Your task to perform on an android device: install app "Google Home" Image 0: 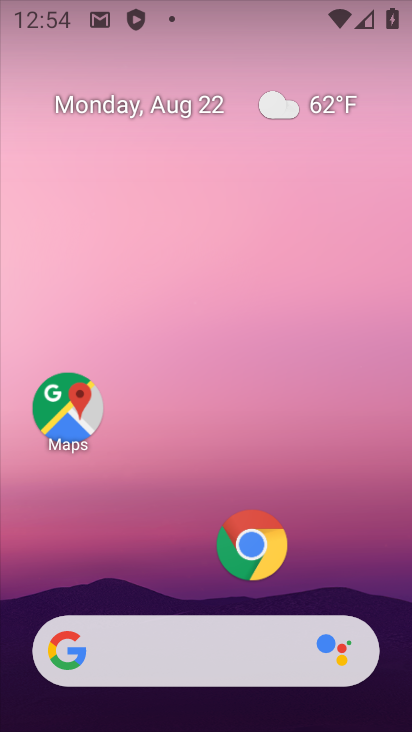
Step 0: drag from (183, 580) to (157, 3)
Your task to perform on an android device: install app "Google Home" Image 1: 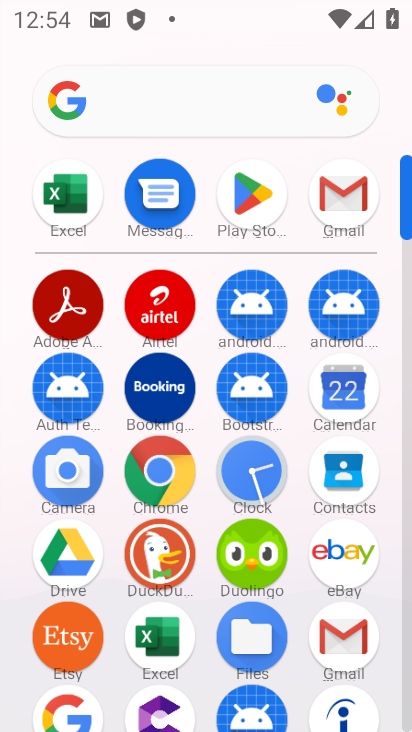
Step 1: click (275, 209)
Your task to perform on an android device: install app "Google Home" Image 2: 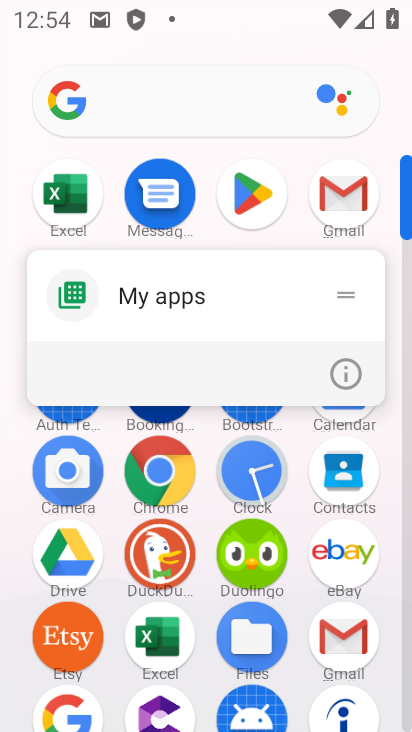
Step 2: click (261, 203)
Your task to perform on an android device: install app "Google Home" Image 3: 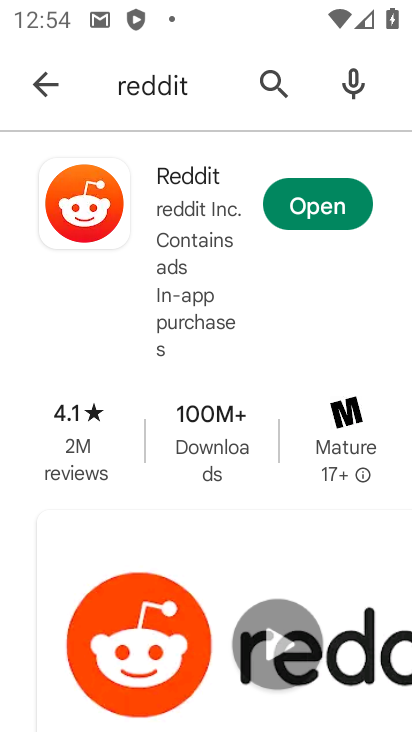
Step 3: click (276, 73)
Your task to perform on an android device: install app "Google Home" Image 4: 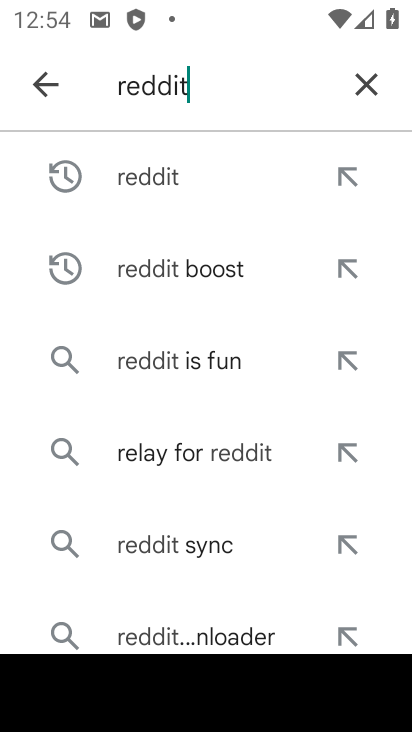
Step 4: click (355, 75)
Your task to perform on an android device: install app "Google Home" Image 5: 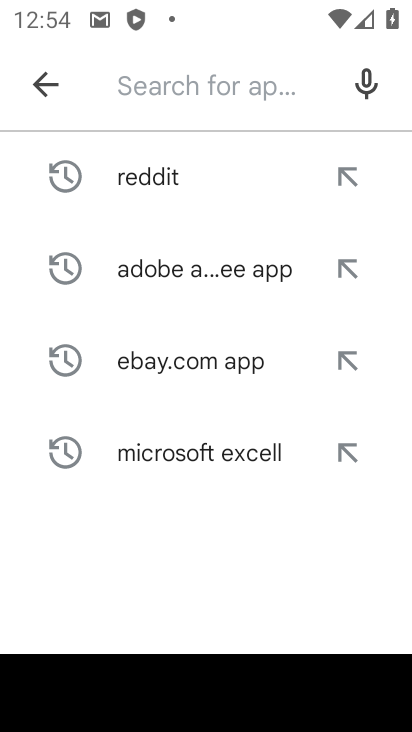
Step 5: click (179, 94)
Your task to perform on an android device: install app "Google Home" Image 6: 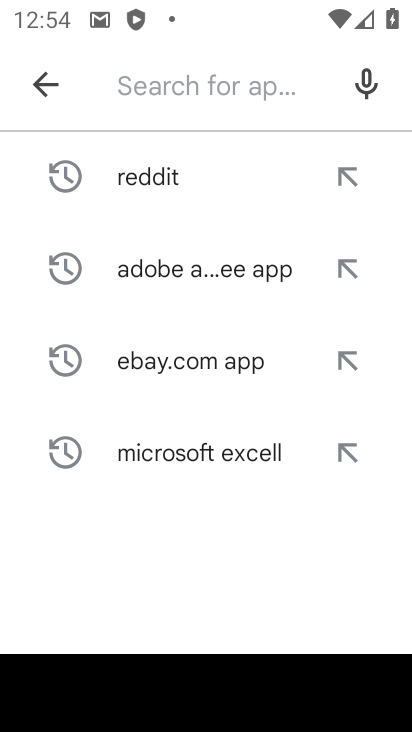
Step 6: type "Google Home"
Your task to perform on an android device: install app "Google Home" Image 7: 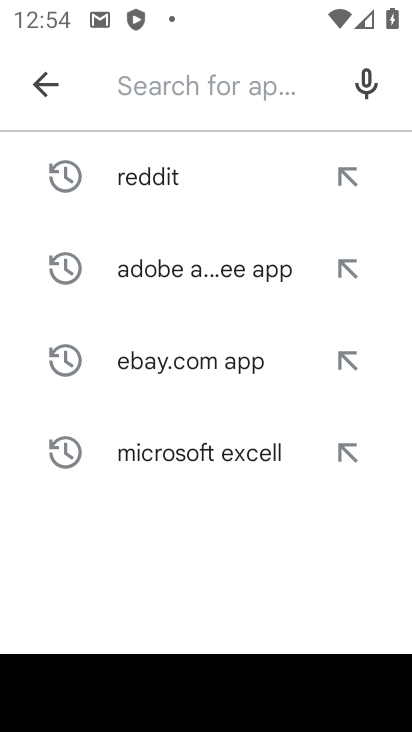
Step 7: click (182, 565)
Your task to perform on an android device: install app "Google Home" Image 8: 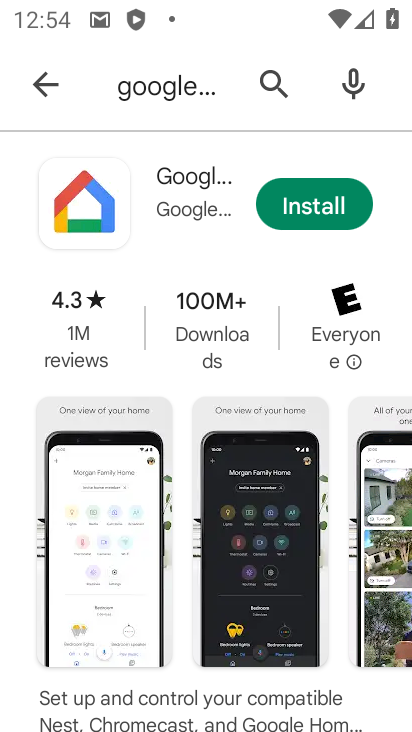
Step 8: click (333, 200)
Your task to perform on an android device: install app "Google Home" Image 9: 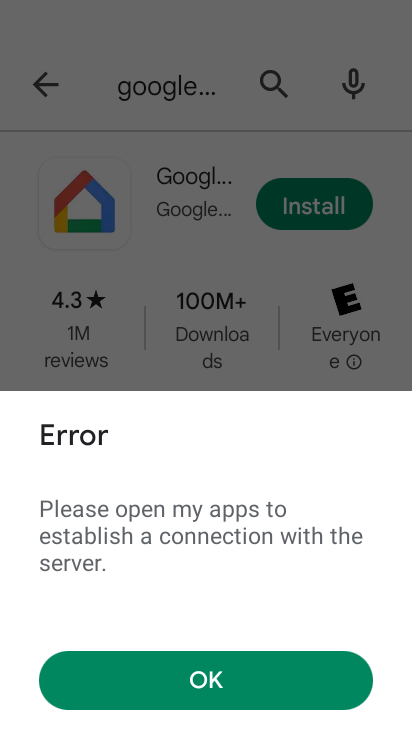
Step 9: click (247, 699)
Your task to perform on an android device: install app "Google Home" Image 10: 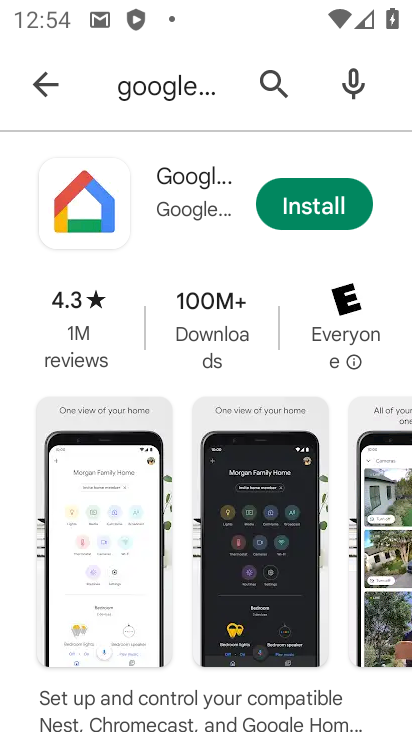
Step 10: task complete